Your task to perform on an android device: change the clock style Image 0: 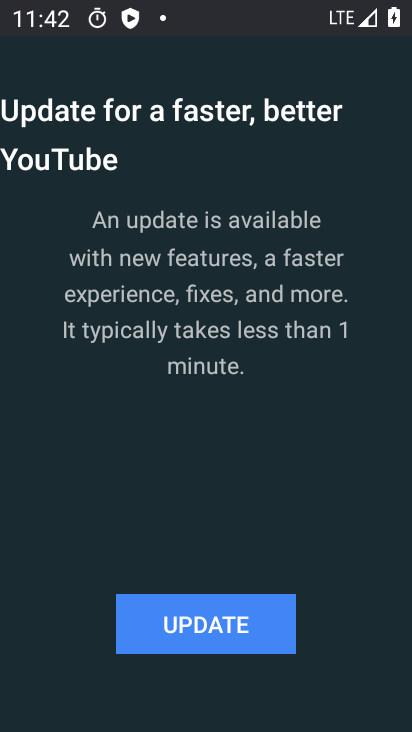
Step 0: press back button
Your task to perform on an android device: change the clock style Image 1: 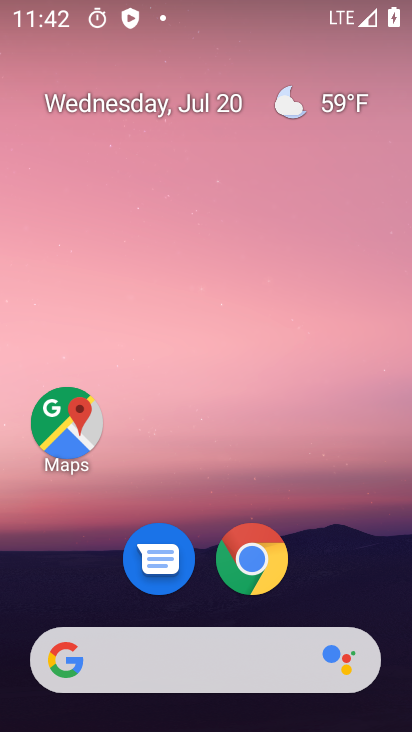
Step 1: drag from (70, 583) to (229, 4)
Your task to perform on an android device: change the clock style Image 2: 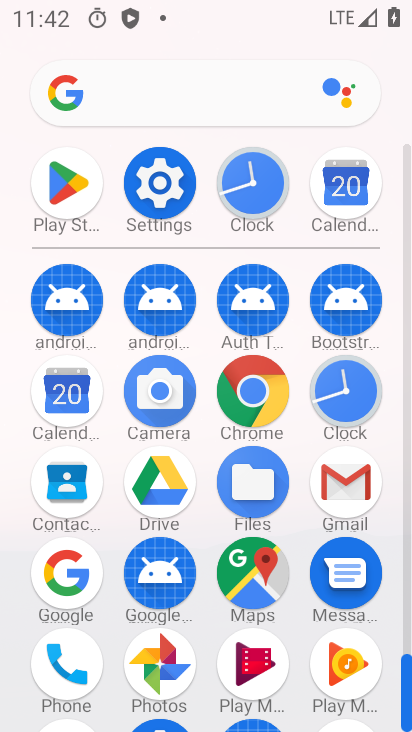
Step 2: click (349, 406)
Your task to perform on an android device: change the clock style Image 3: 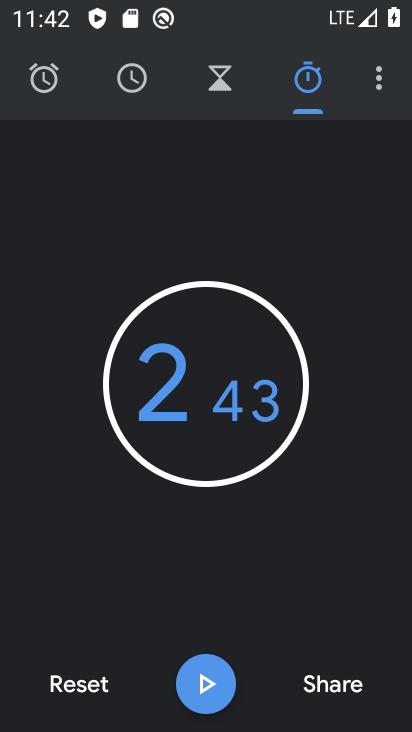
Step 3: click (375, 84)
Your task to perform on an android device: change the clock style Image 4: 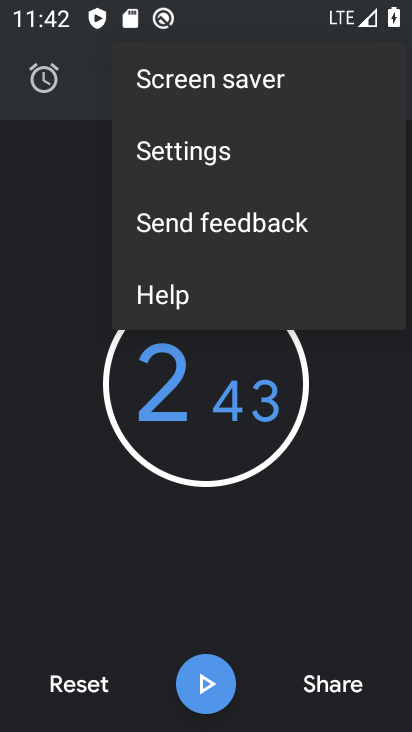
Step 4: click (193, 151)
Your task to perform on an android device: change the clock style Image 5: 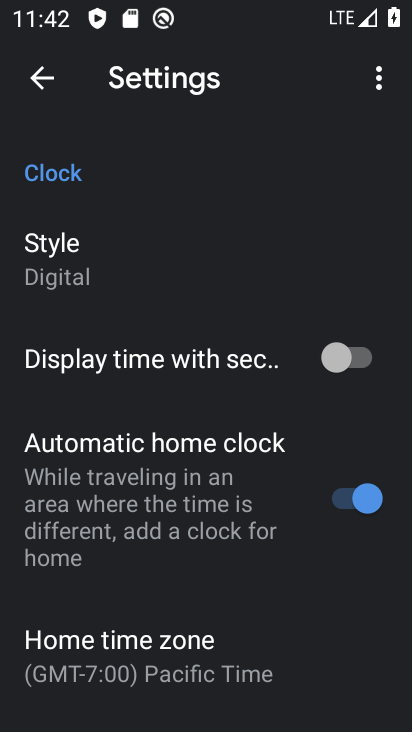
Step 5: click (125, 258)
Your task to perform on an android device: change the clock style Image 6: 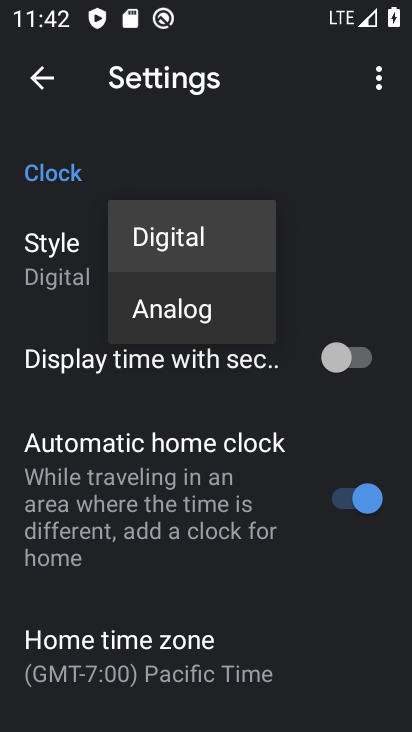
Step 6: click (169, 309)
Your task to perform on an android device: change the clock style Image 7: 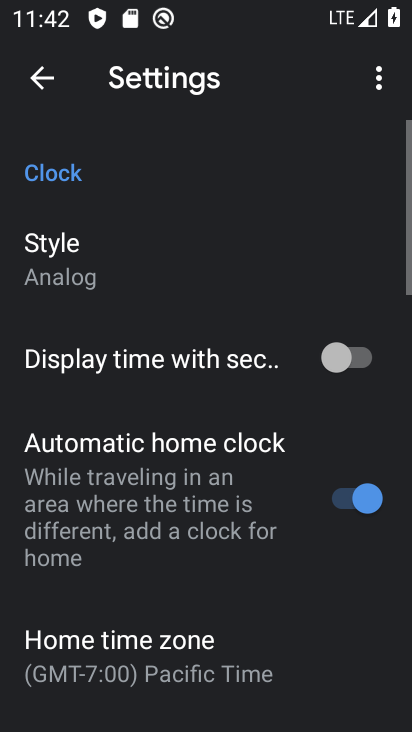
Step 7: task complete